Your task to perform on an android device: Open battery settings Image 0: 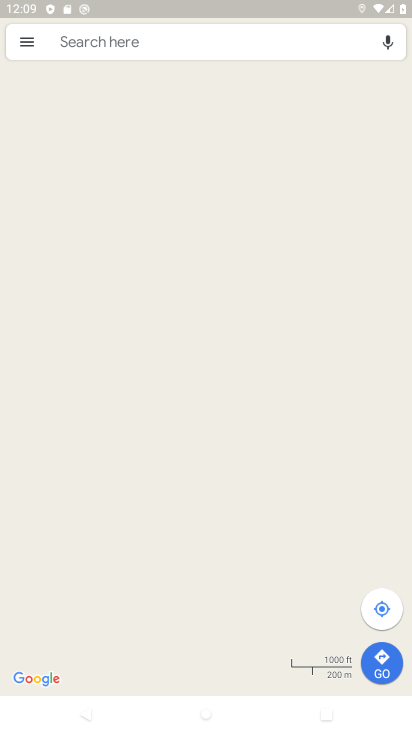
Step 0: press home button
Your task to perform on an android device: Open battery settings Image 1: 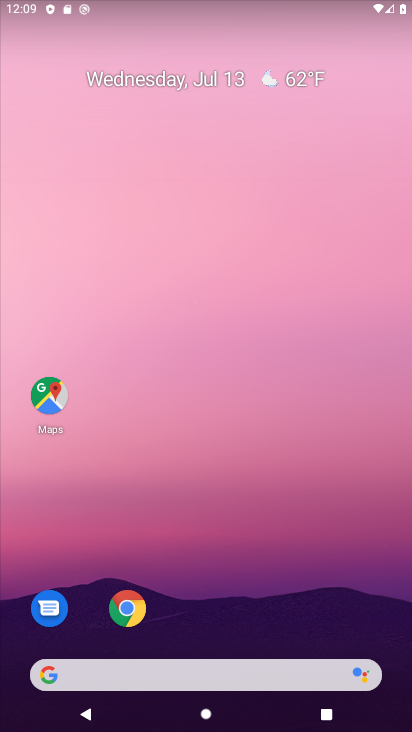
Step 1: drag from (309, 604) to (322, 161)
Your task to perform on an android device: Open battery settings Image 2: 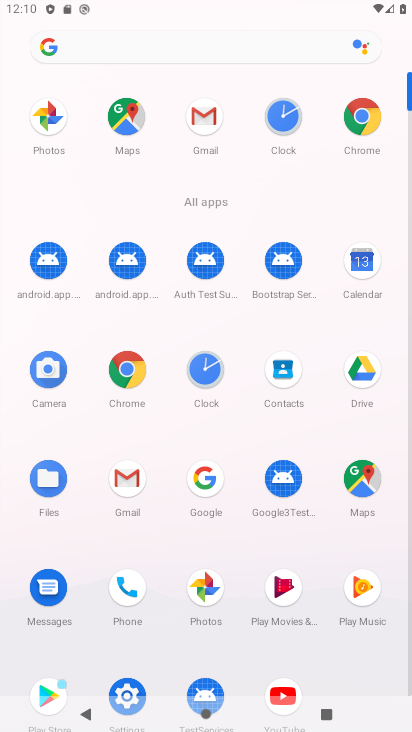
Step 2: drag from (240, 539) to (244, 330)
Your task to perform on an android device: Open battery settings Image 3: 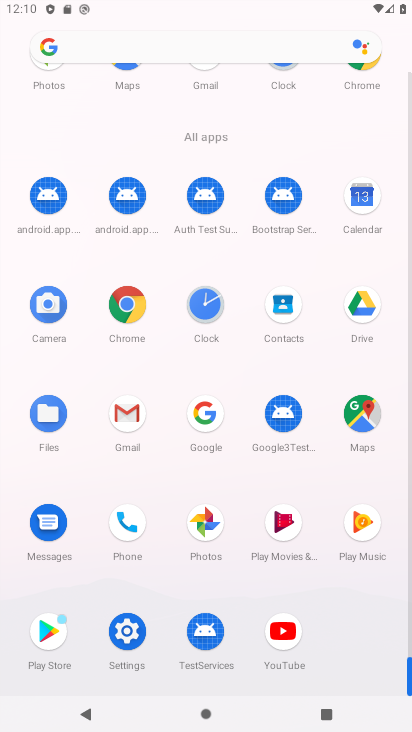
Step 3: click (131, 637)
Your task to perform on an android device: Open battery settings Image 4: 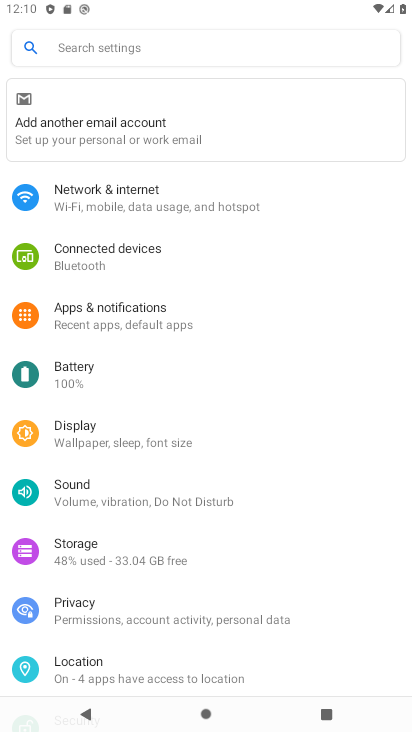
Step 4: drag from (332, 445) to (339, 303)
Your task to perform on an android device: Open battery settings Image 5: 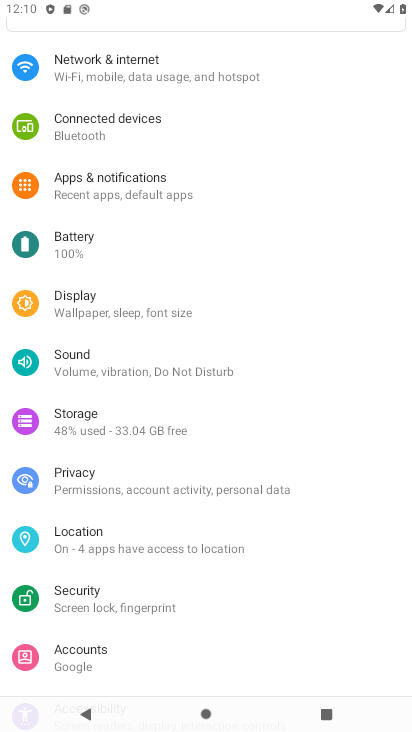
Step 5: drag from (333, 475) to (335, 327)
Your task to perform on an android device: Open battery settings Image 6: 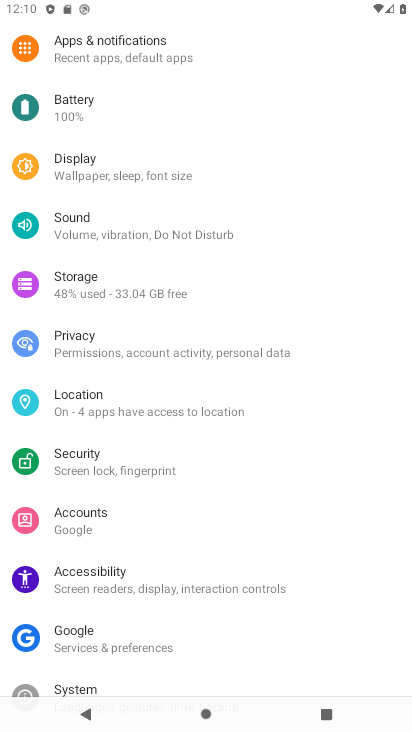
Step 6: drag from (323, 508) to (320, 317)
Your task to perform on an android device: Open battery settings Image 7: 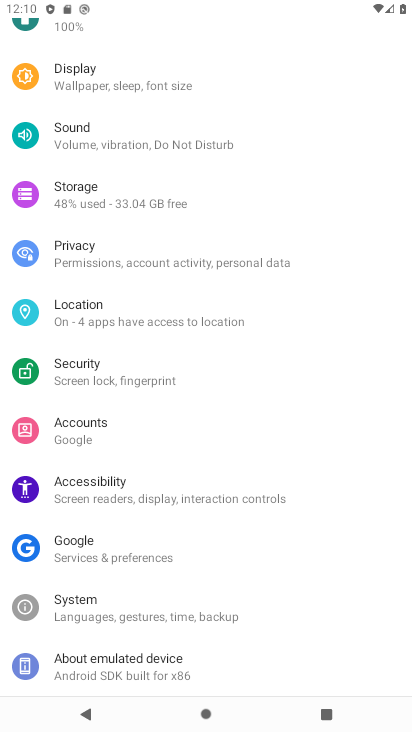
Step 7: drag from (334, 527) to (342, 366)
Your task to perform on an android device: Open battery settings Image 8: 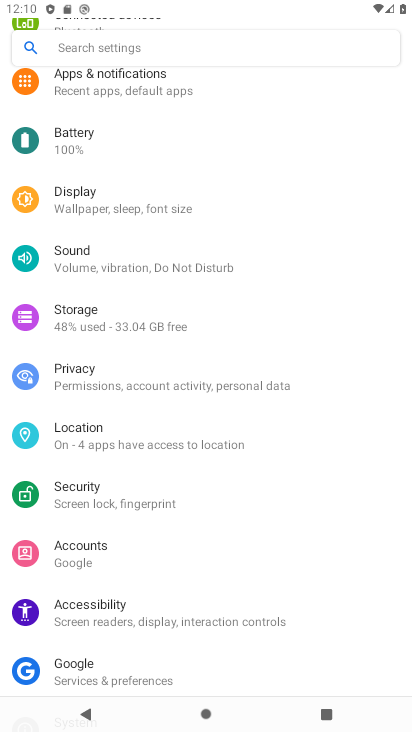
Step 8: drag from (340, 236) to (344, 354)
Your task to perform on an android device: Open battery settings Image 9: 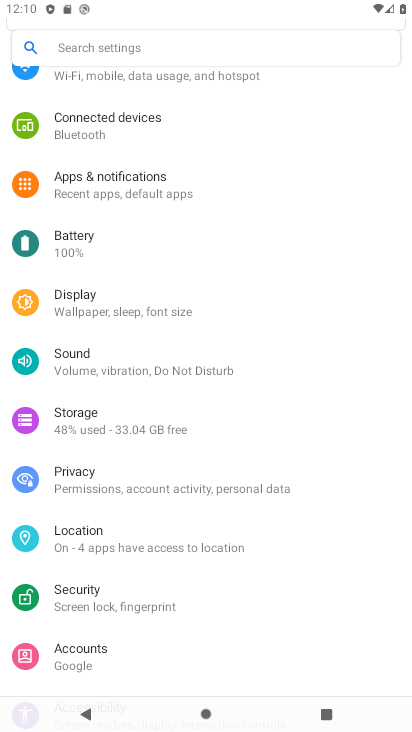
Step 9: drag from (339, 253) to (355, 417)
Your task to perform on an android device: Open battery settings Image 10: 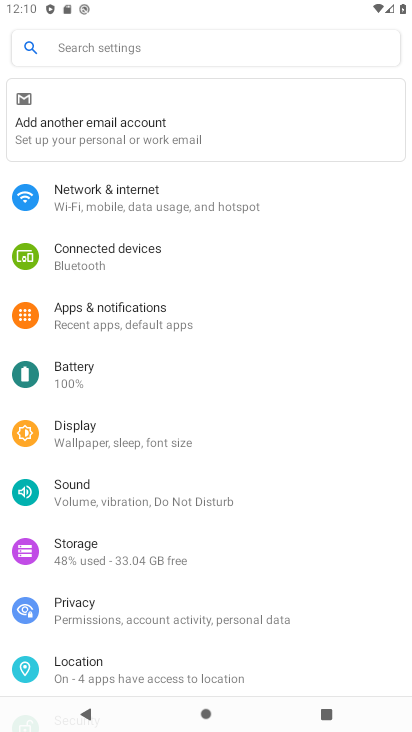
Step 10: click (125, 380)
Your task to perform on an android device: Open battery settings Image 11: 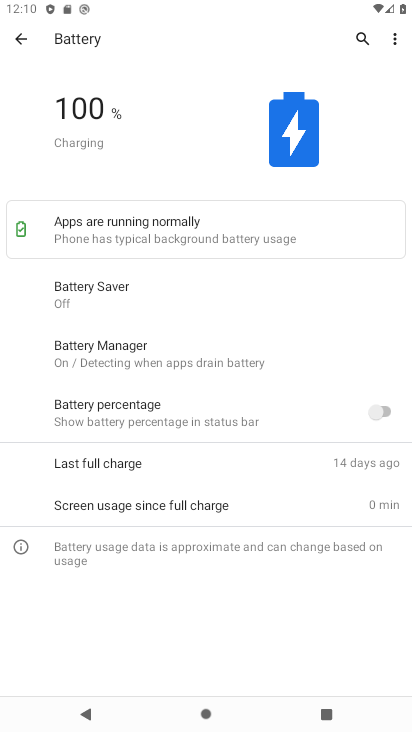
Step 11: task complete